Your task to perform on an android device: What's on my calendar today? Image 0: 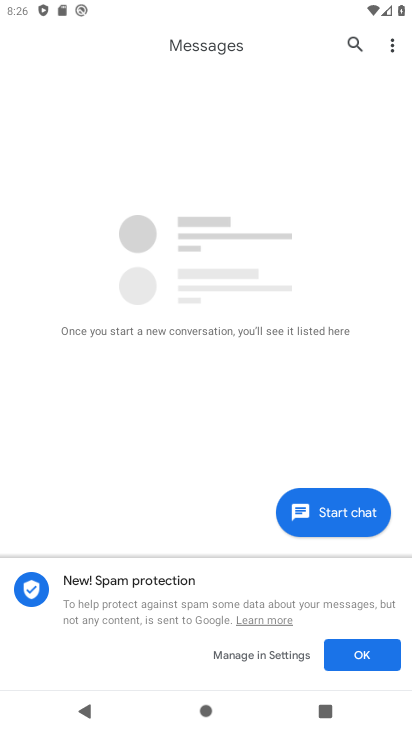
Step 0: press home button
Your task to perform on an android device: What's on my calendar today? Image 1: 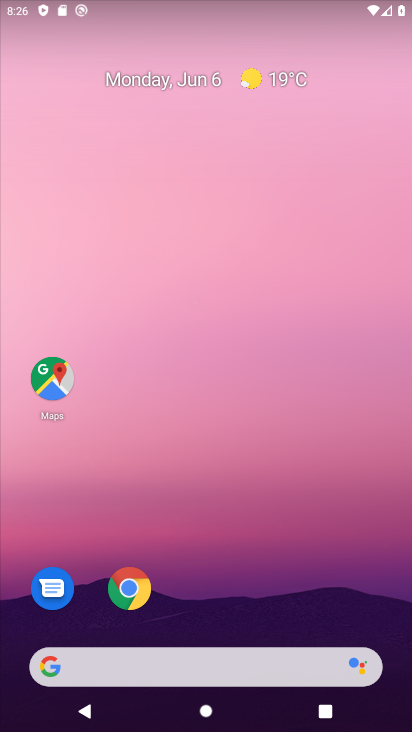
Step 1: drag from (294, 682) to (317, 0)
Your task to perform on an android device: What's on my calendar today? Image 2: 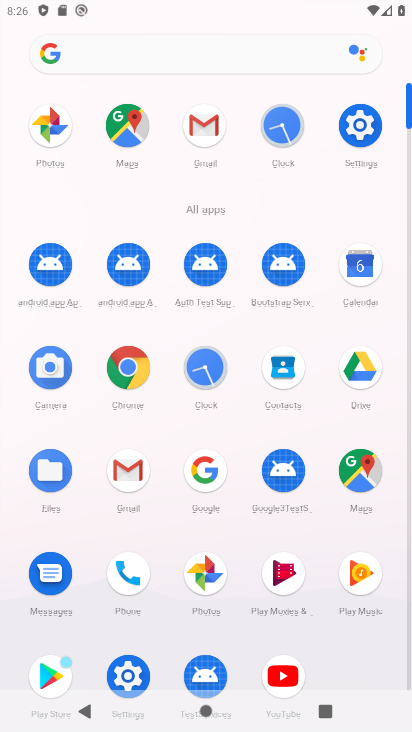
Step 2: click (363, 272)
Your task to perform on an android device: What's on my calendar today? Image 3: 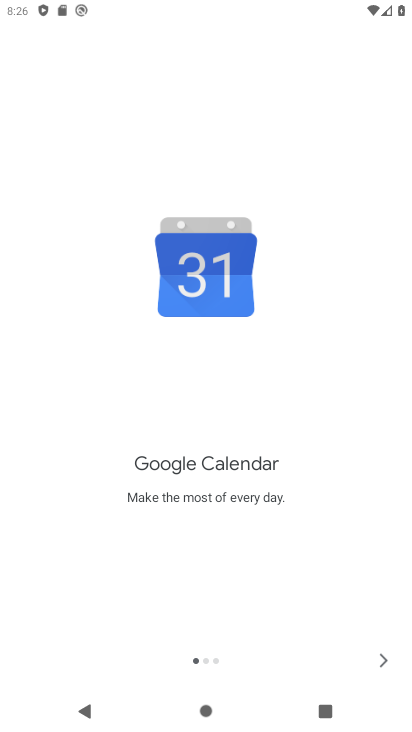
Step 3: click (381, 653)
Your task to perform on an android device: What's on my calendar today? Image 4: 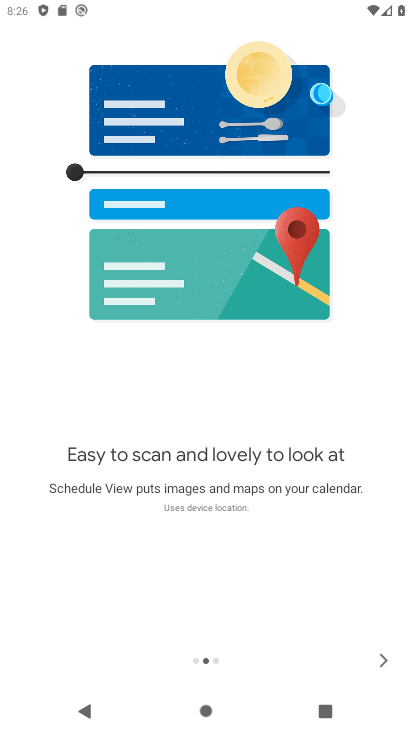
Step 4: click (381, 657)
Your task to perform on an android device: What's on my calendar today? Image 5: 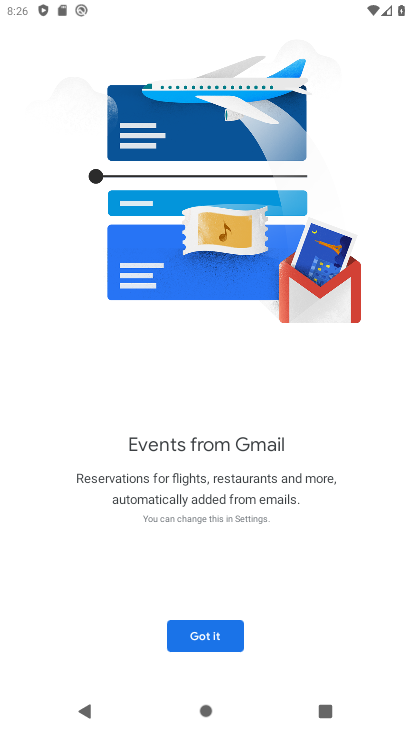
Step 5: click (214, 639)
Your task to perform on an android device: What's on my calendar today? Image 6: 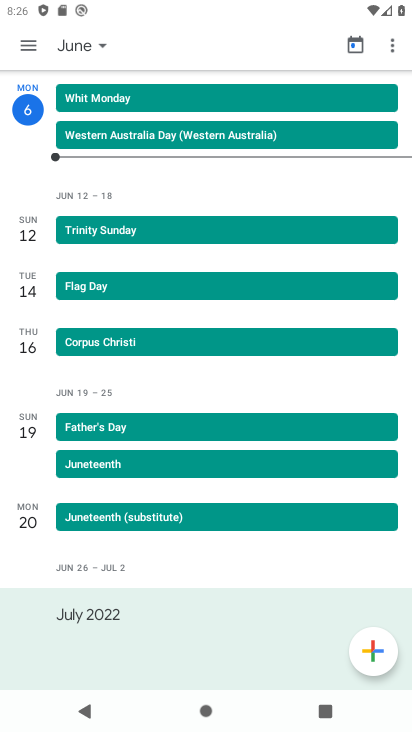
Step 6: task complete